Your task to perform on an android device: Clear the shopping cart on target. Image 0: 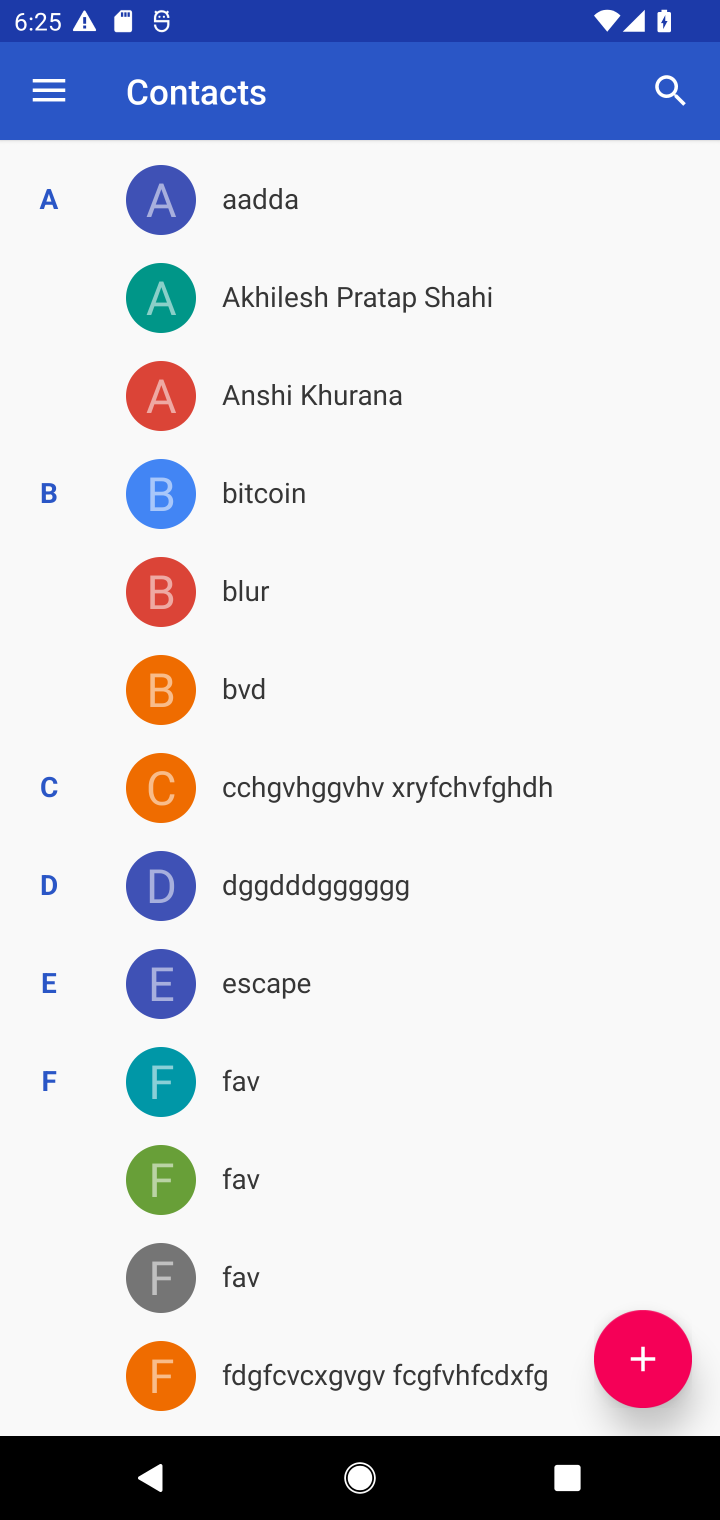
Step 0: press home button
Your task to perform on an android device: Clear the shopping cart on target. Image 1: 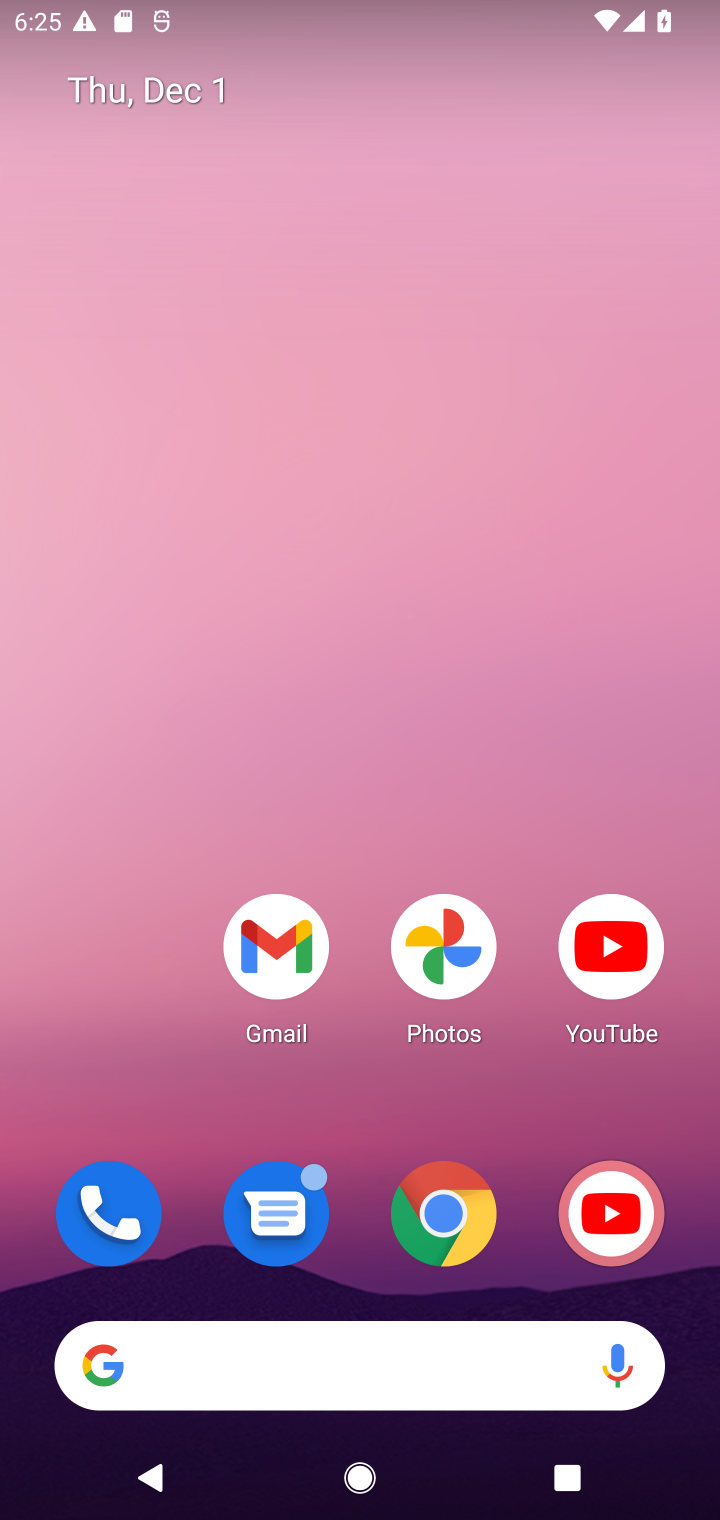
Step 1: click (464, 1204)
Your task to perform on an android device: Clear the shopping cart on target. Image 2: 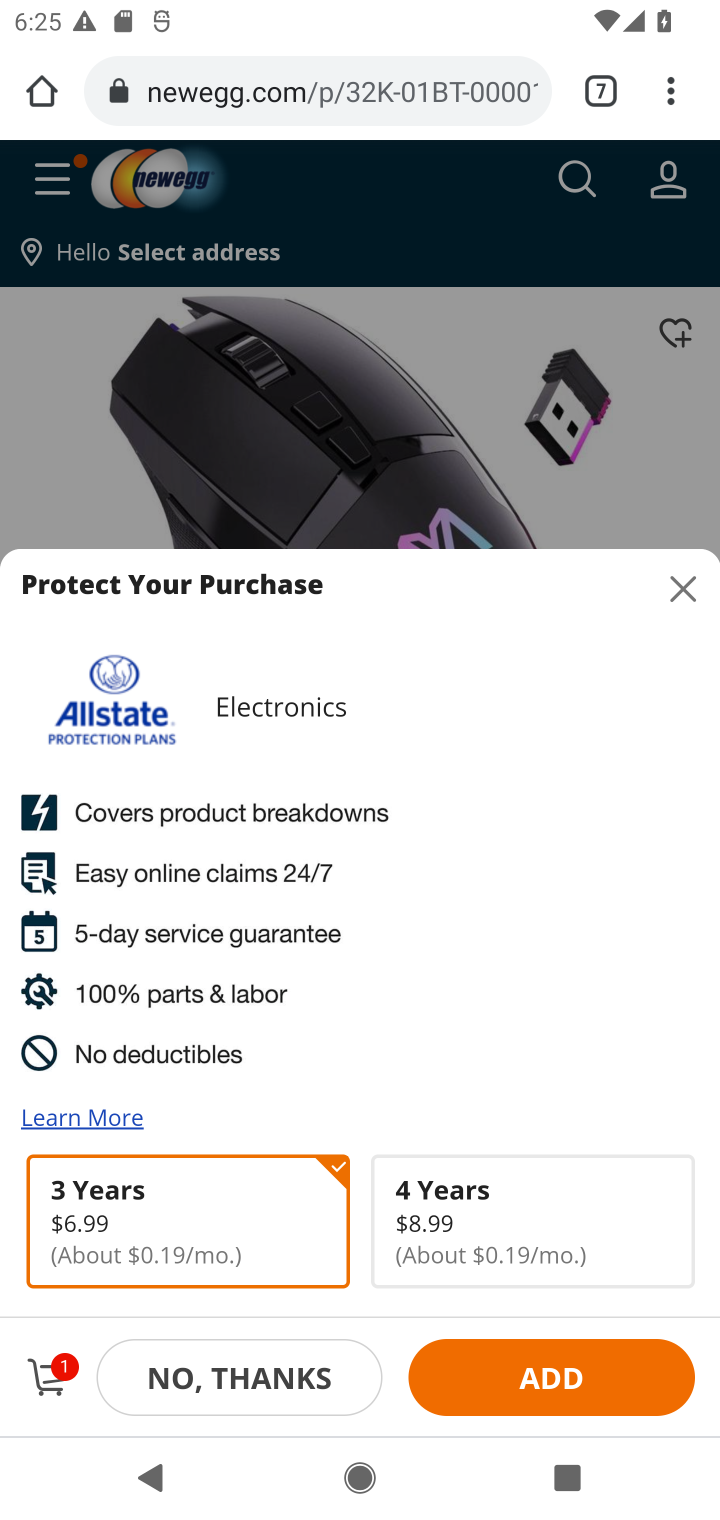
Step 2: click (692, 565)
Your task to perform on an android device: Clear the shopping cart on target. Image 3: 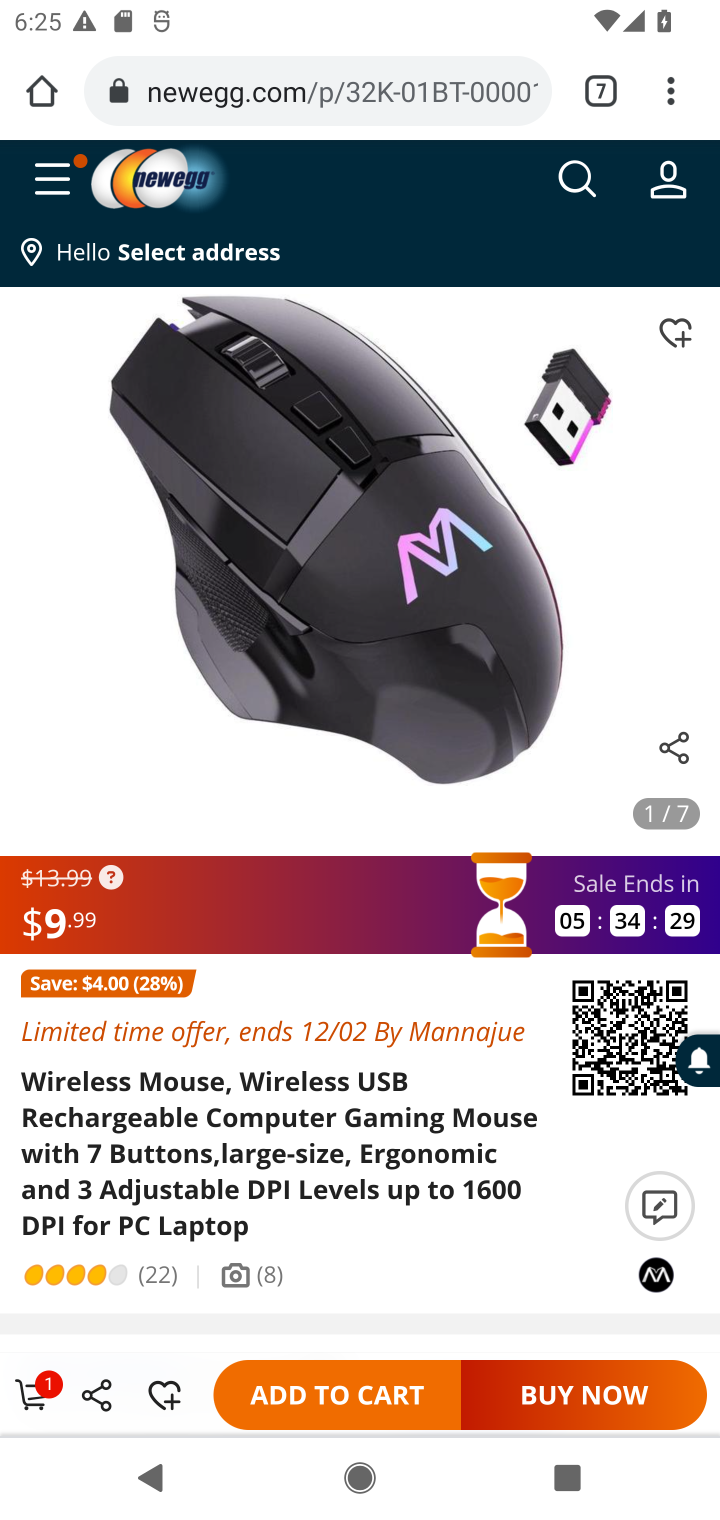
Step 3: click (579, 181)
Your task to perform on an android device: Clear the shopping cart on target. Image 4: 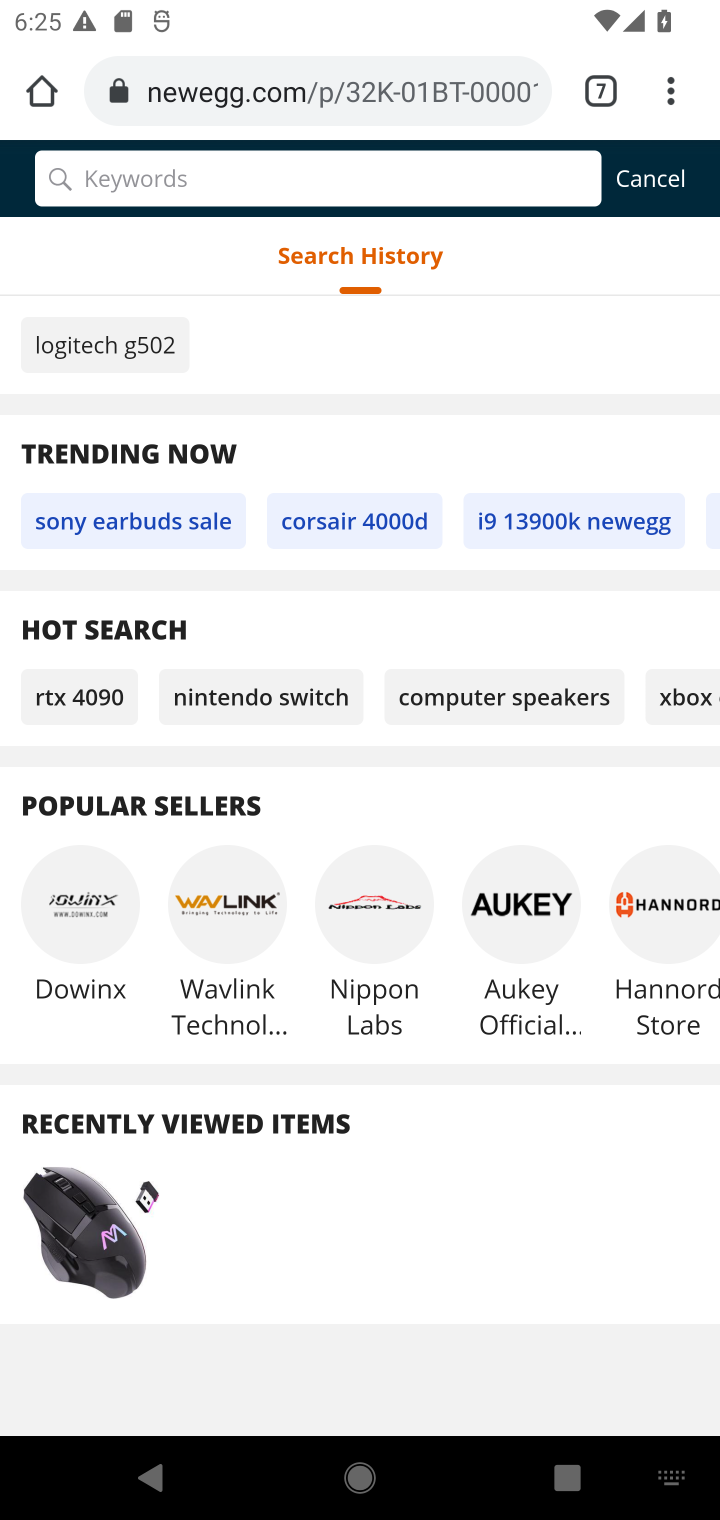
Step 4: press home button
Your task to perform on an android device: Clear the shopping cart on target. Image 5: 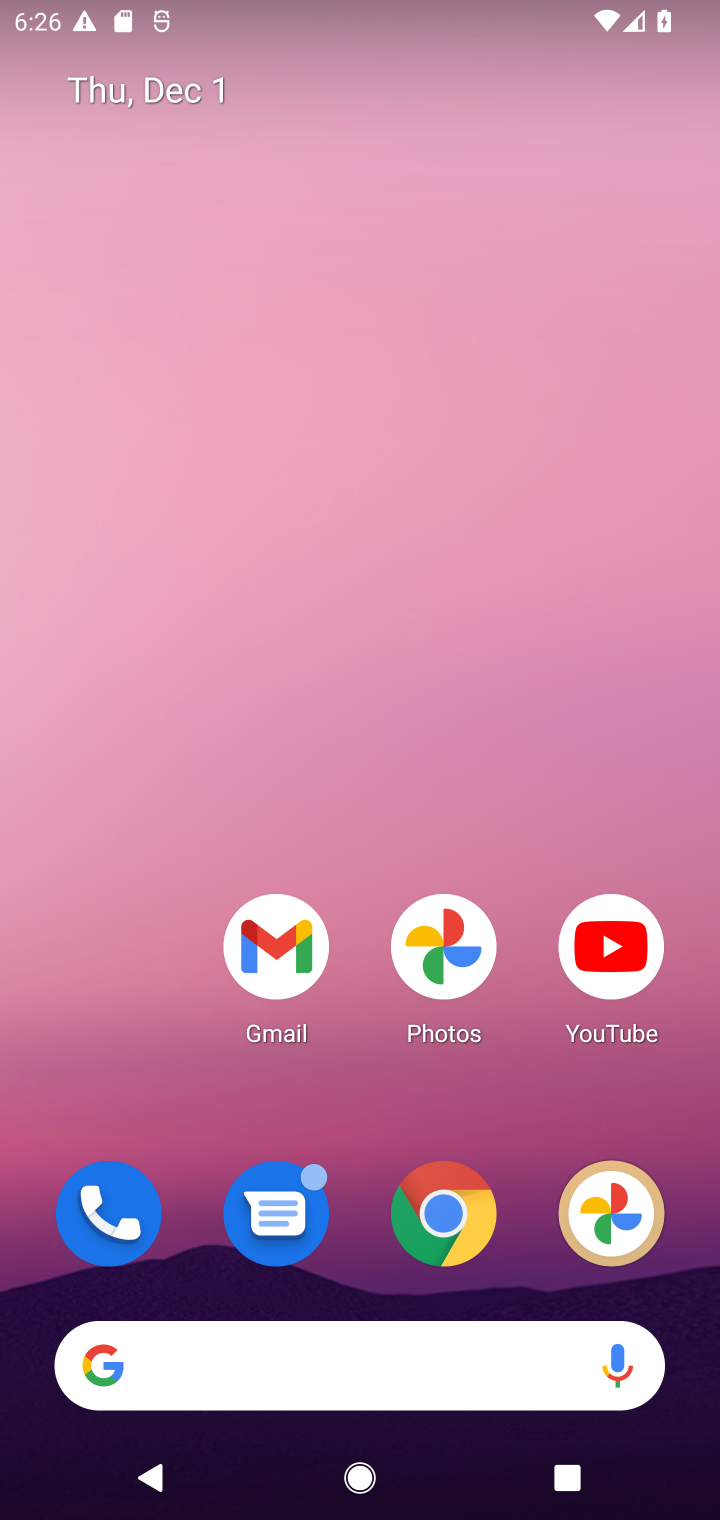
Step 5: click (349, 1388)
Your task to perform on an android device: Clear the shopping cart on target. Image 6: 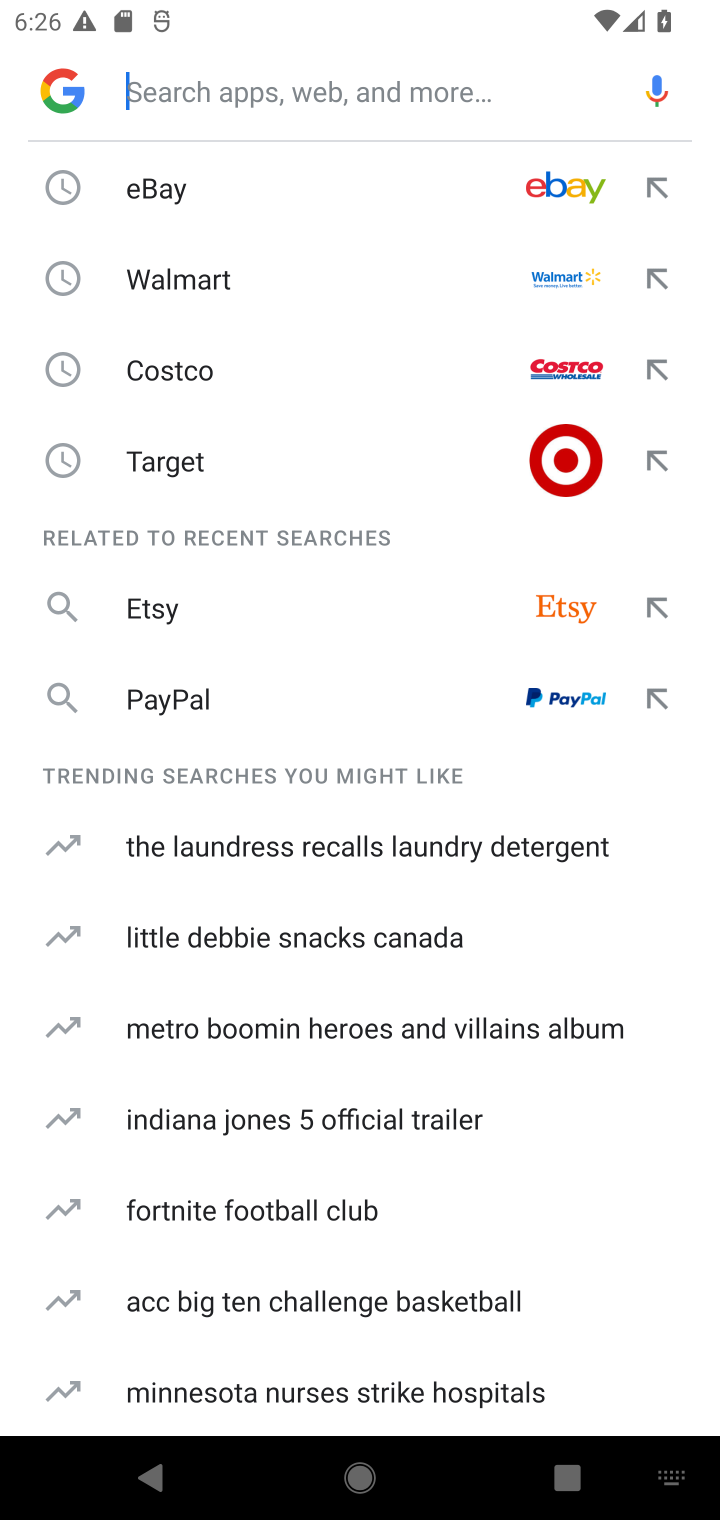
Step 6: click (258, 452)
Your task to perform on an android device: Clear the shopping cart on target. Image 7: 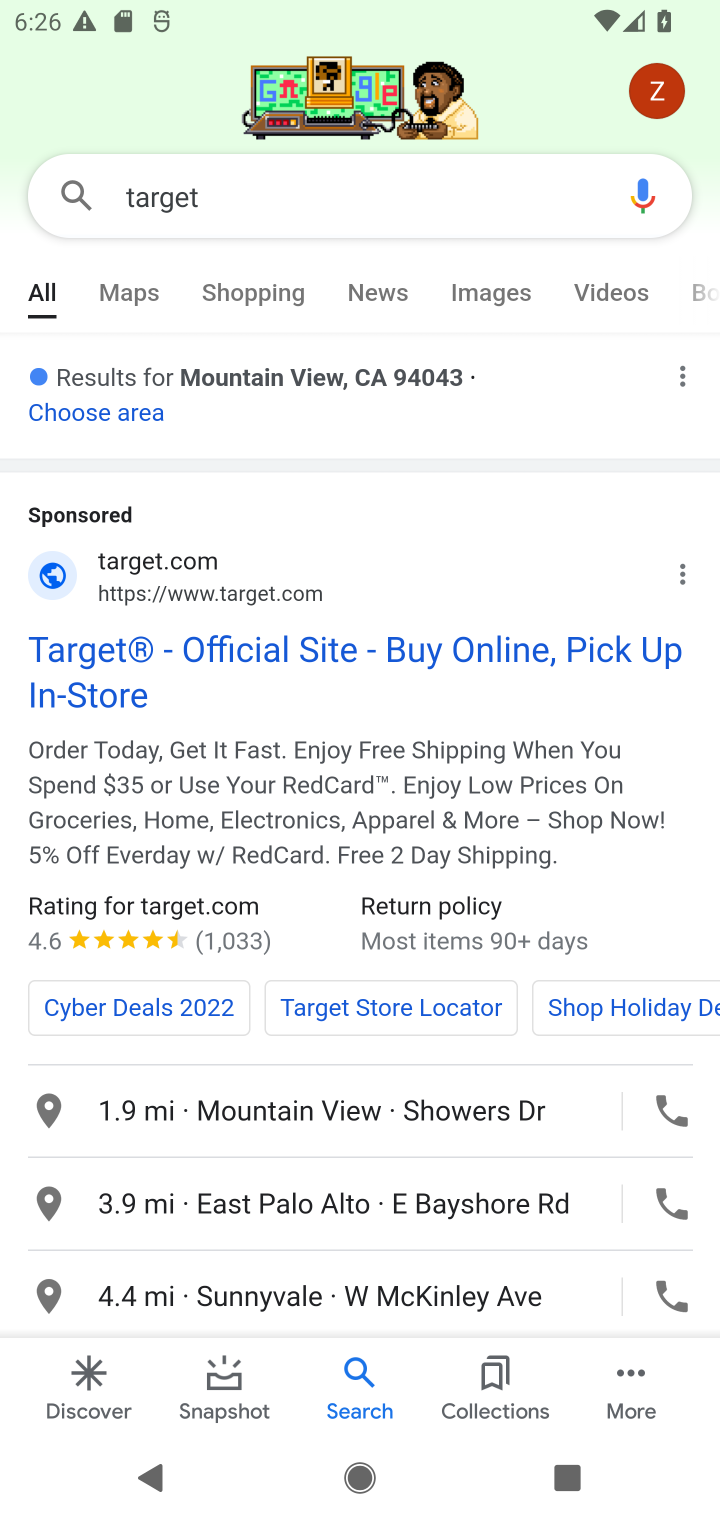
Step 7: click (220, 692)
Your task to perform on an android device: Clear the shopping cart on target. Image 8: 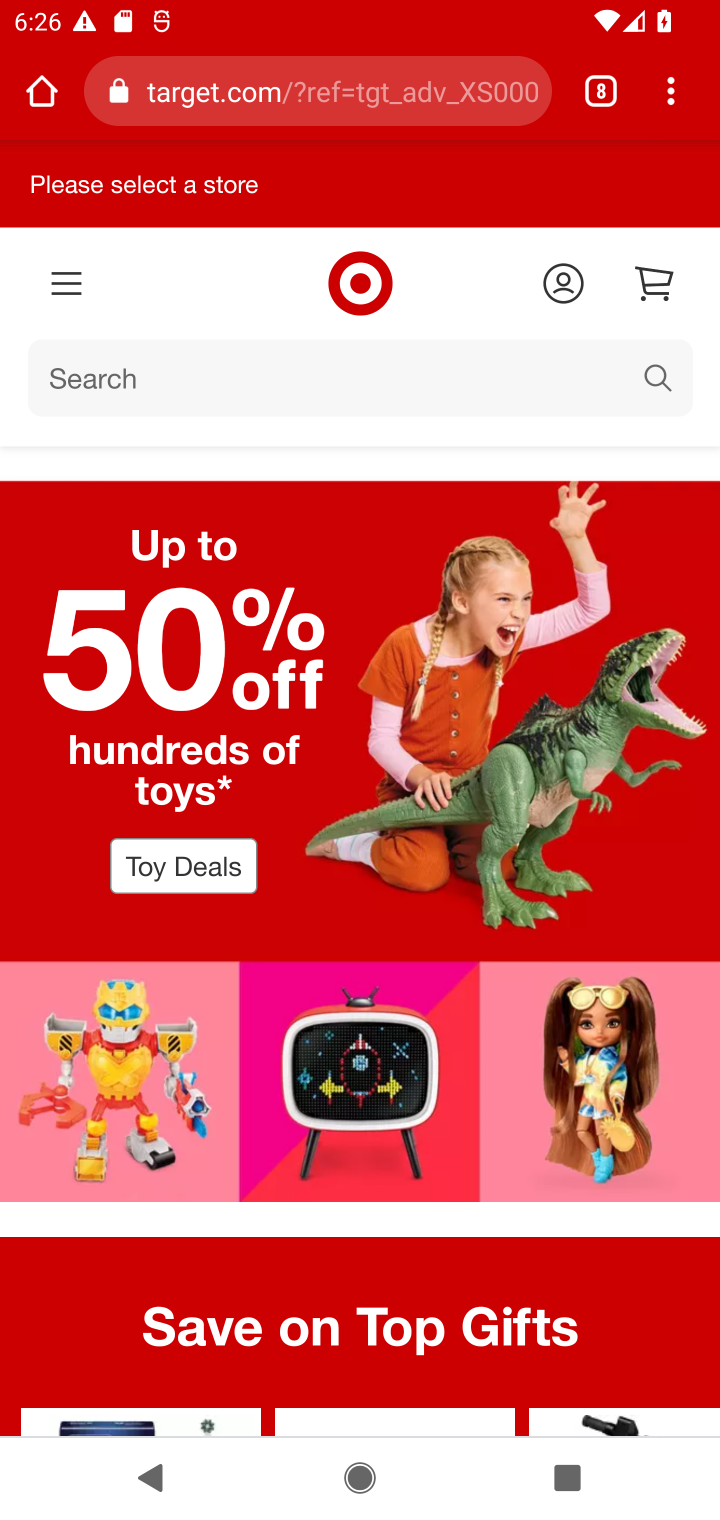
Step 8: click (99, 362)
Your task to perform on an android device: Clear the shopping cart on target. Image 9: 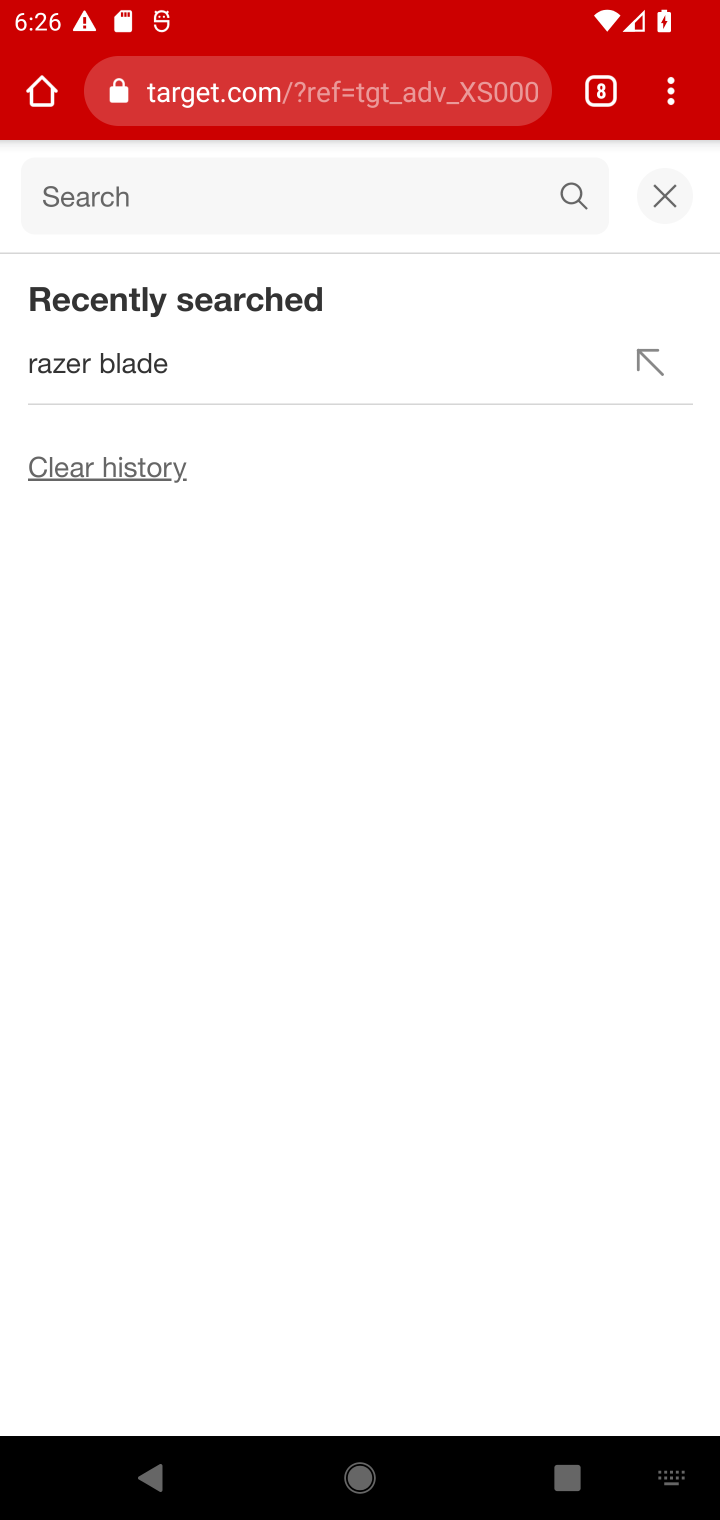
Step 9: click (678, 195)
Your task to perform on an android device: Clear the shopping cart on target. Image 10: 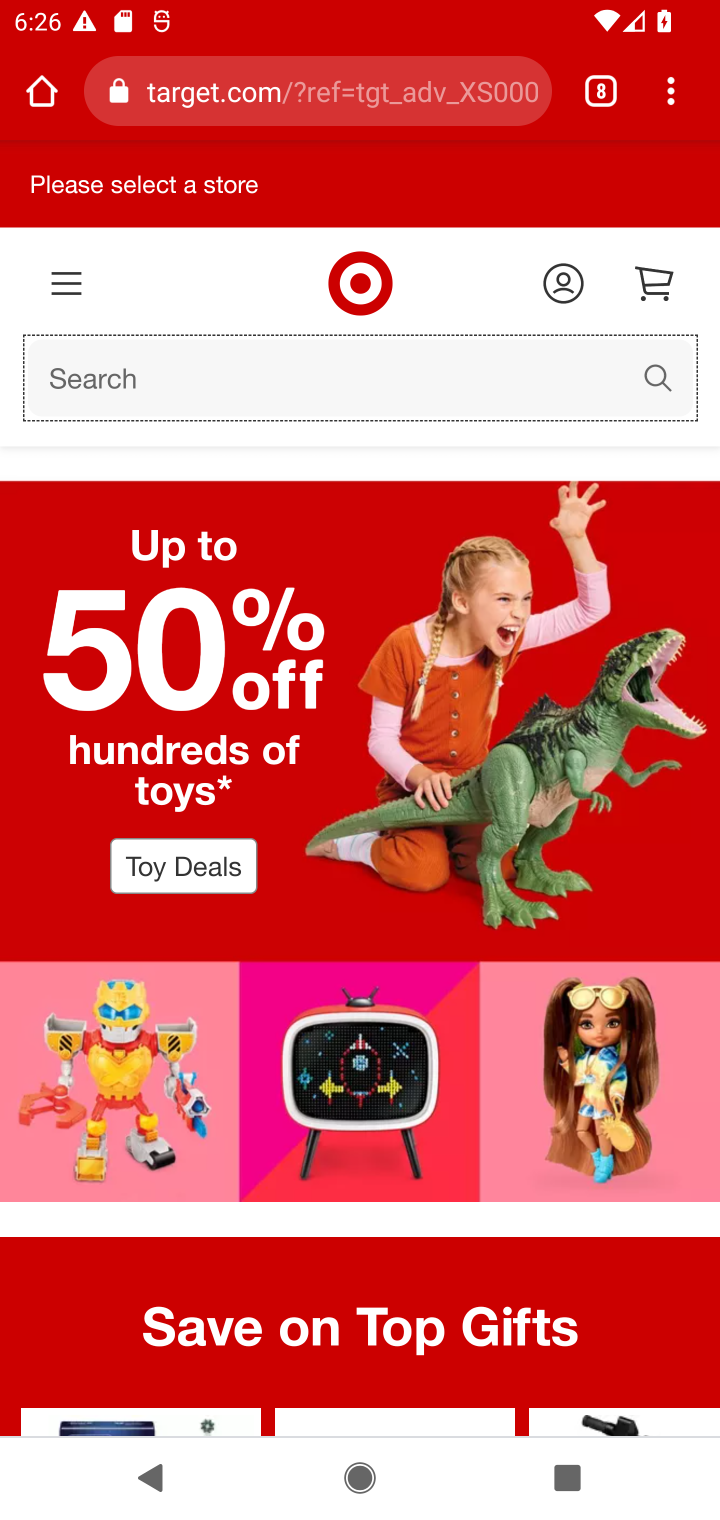
Step 10: click (331, 208)
Your task to perform on an android device: Clear the shopping cart on target. Image 11: 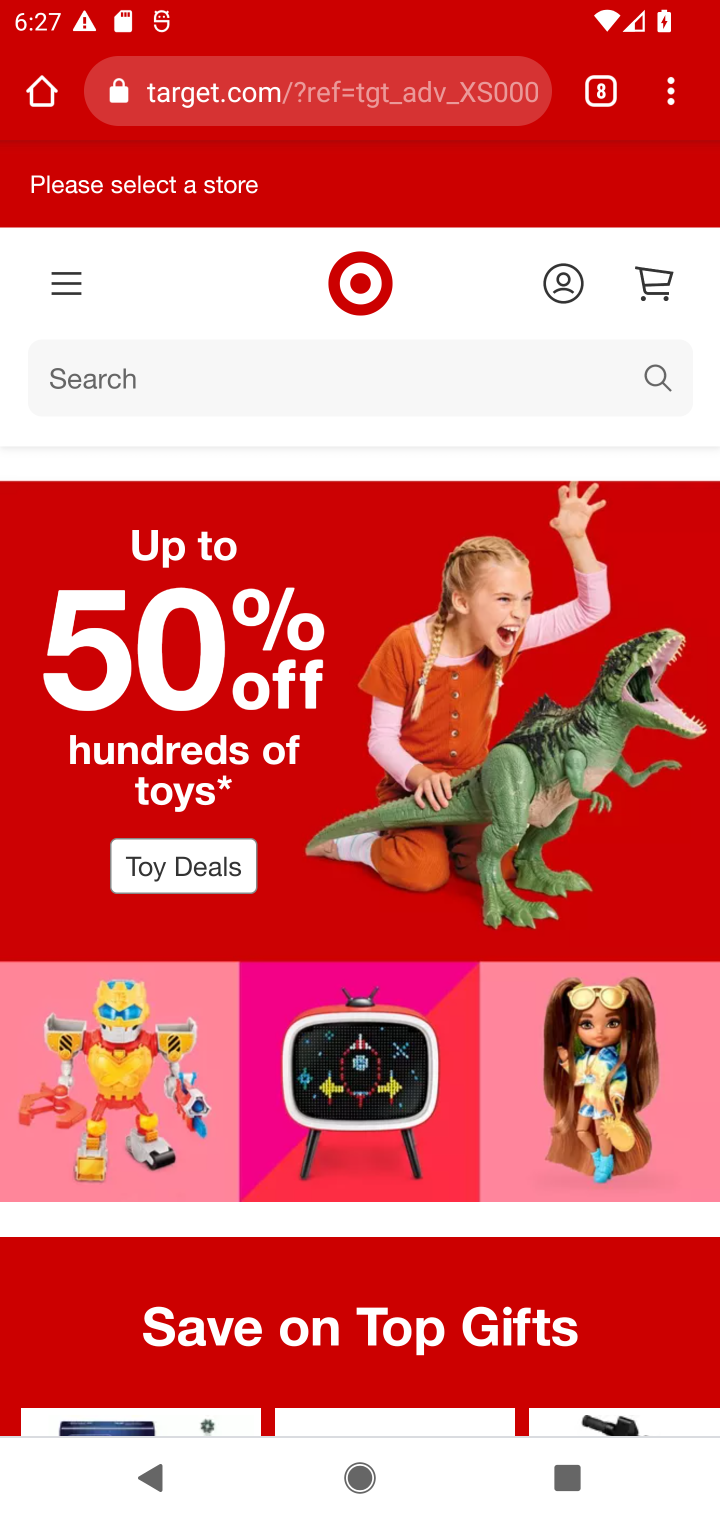
Step 11: click (661, 287)
Your task to perform on an android device: Clear the shopping cart on target. Image 12: 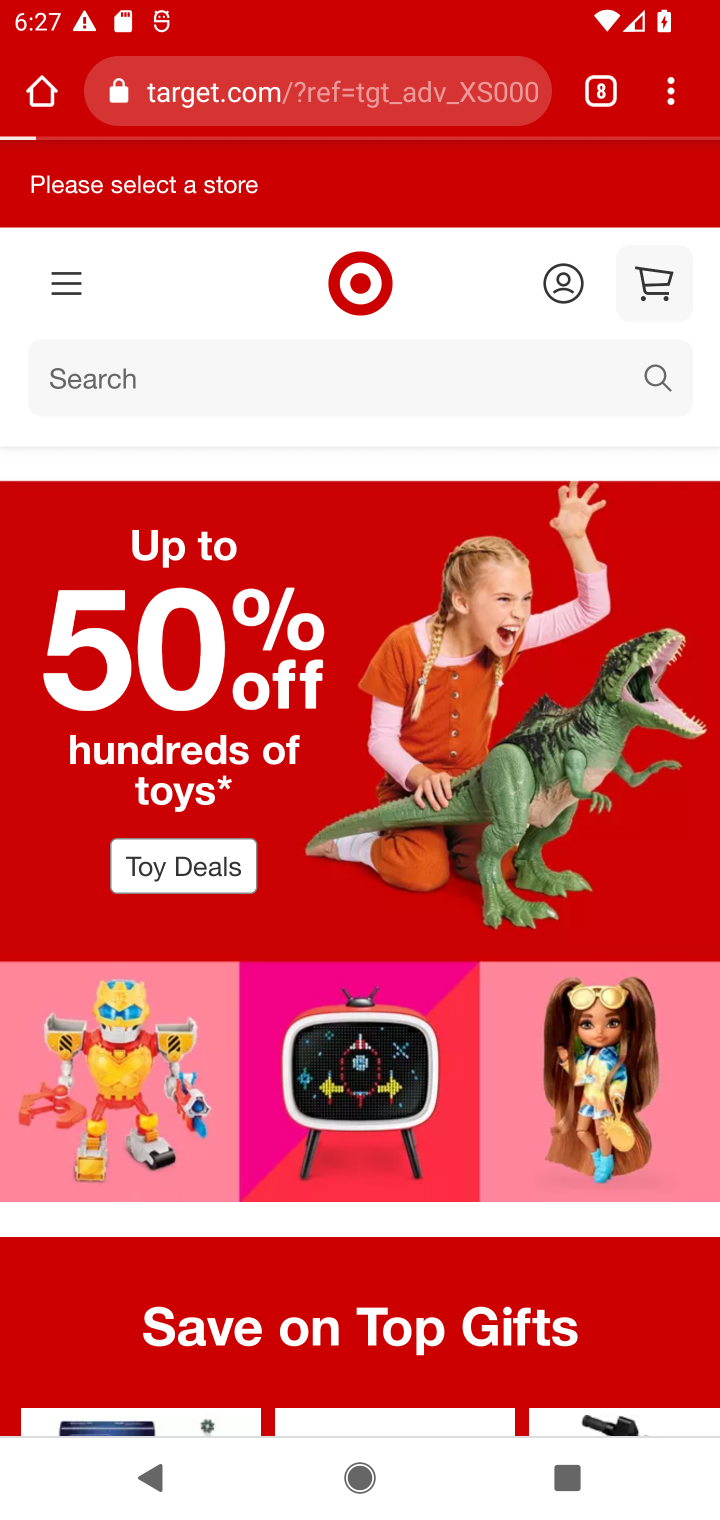
Step 12: task complete